Your task to perform on an android device: search for starred emails in the gmail app Image 0: 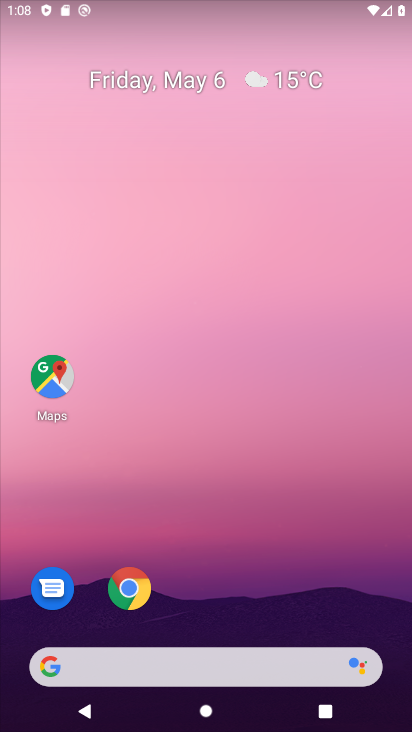
Step 0: drag from (259, 123) to (259, 33)
Your task to perform on an android device: search for starred emails in the gmail app Image 1: 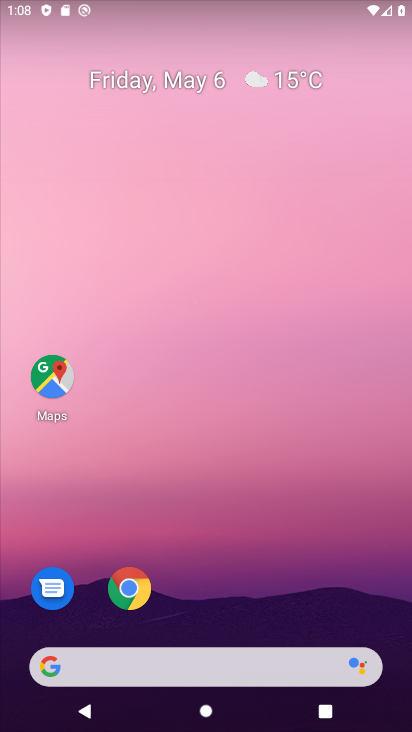
Step 1: drag from (218, 608) to (251, 155)
Your task to perform on an android device: search for starred emails in the gmail app Image 2: 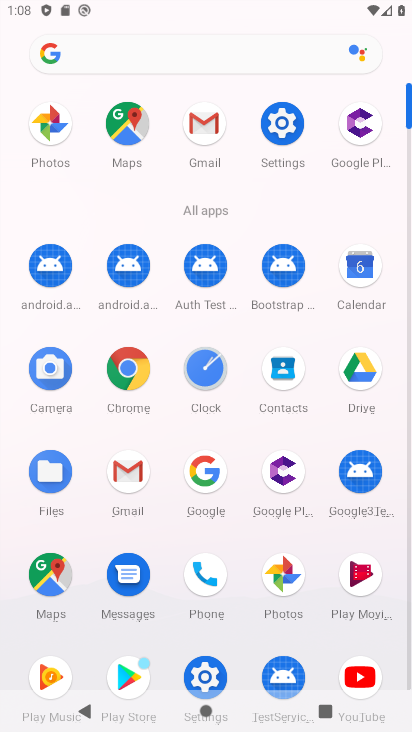
Step 2: click (133, 476)
Your task to perform on an android device: search for starred emails in the gmail app Image 3: 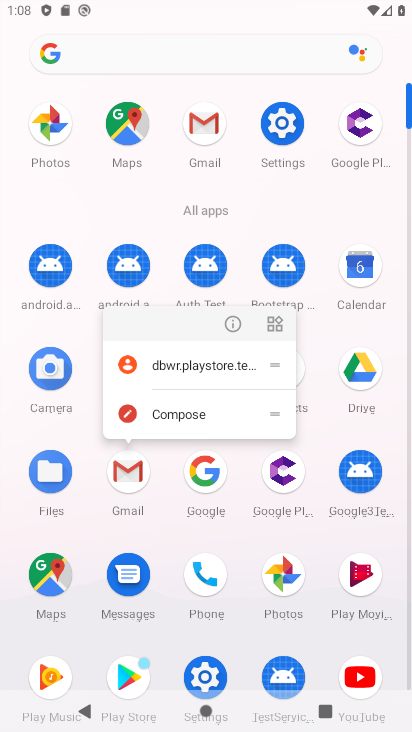
Step 3: click (230, 328)
Your task to perform on an android device: search for starred emails in the gmail app Image 4: 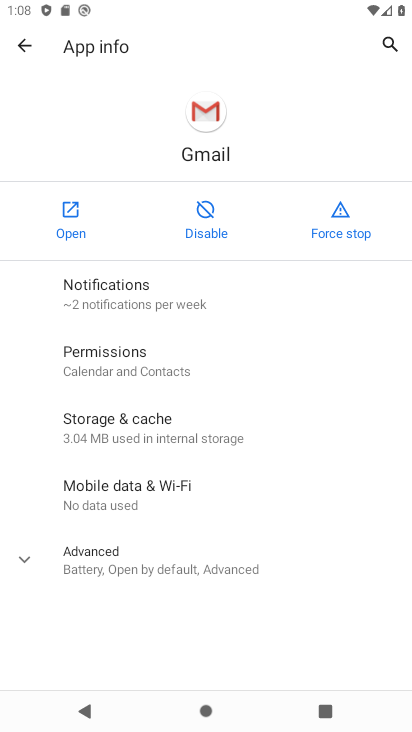
Step 4: click (58, 235)
Your task to perform on an android device: search for starred emails in the gmail app Image 5: 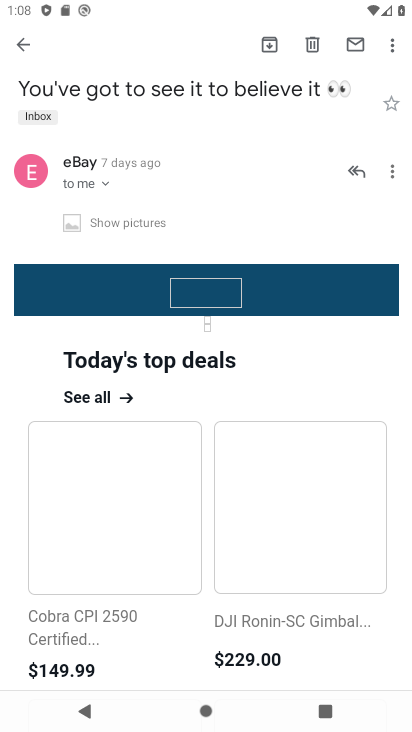
Step 5: press back button
Your task to perform on an android device: search for starred emails in the gmail app Image 6: 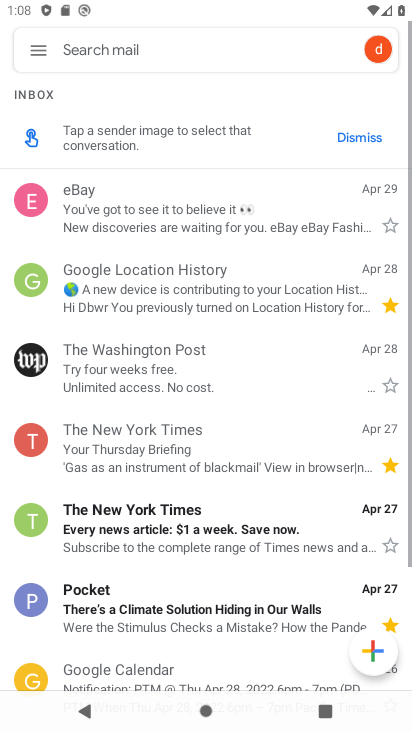
Step 6: click (192, 33)
Your task to perform on an android device: search for starred emails in the gmail app Image 7: 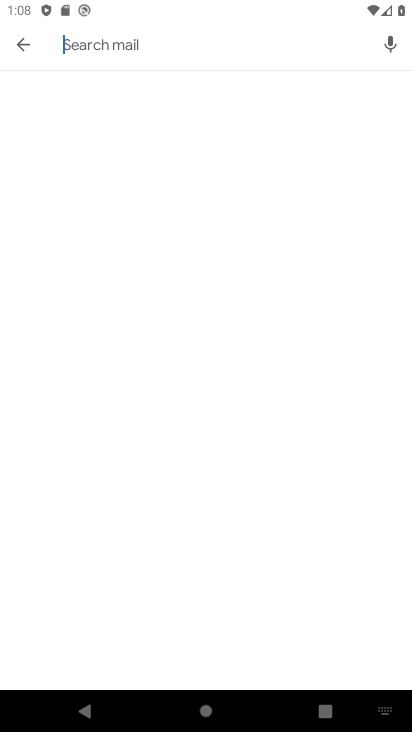
Step 7: type "starred "
Your task to perform on an android device: search for starred emails in the gmail app Image 8: 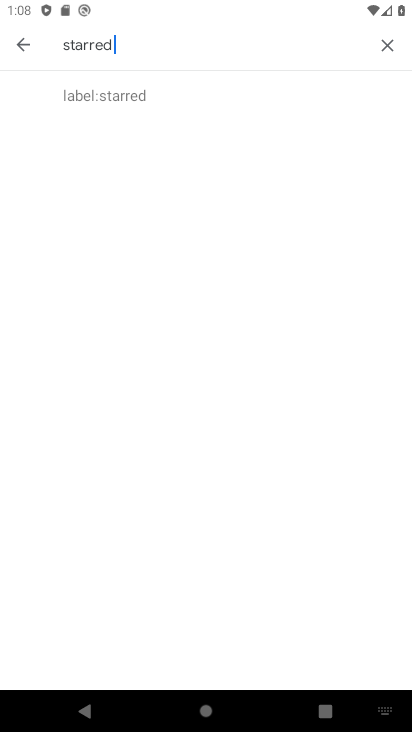
Step 8: click (55, 85)
Your task to perform on an android device: search for starred emails in the gmail app Image 9: 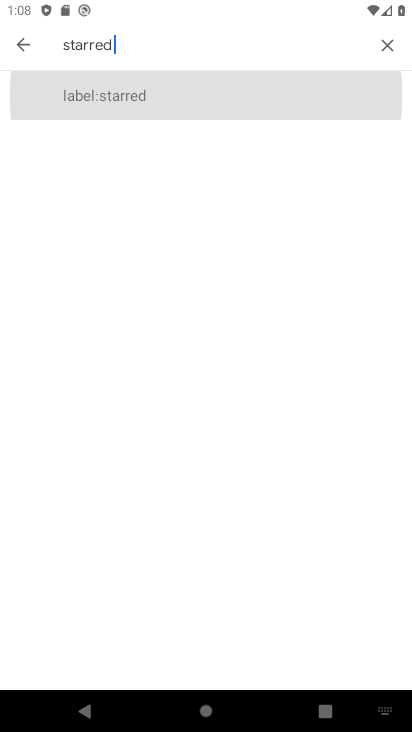
Step 9: click (129, 92)
Your task to perform on an android device: search for starred emails in the gmail app Image 10: 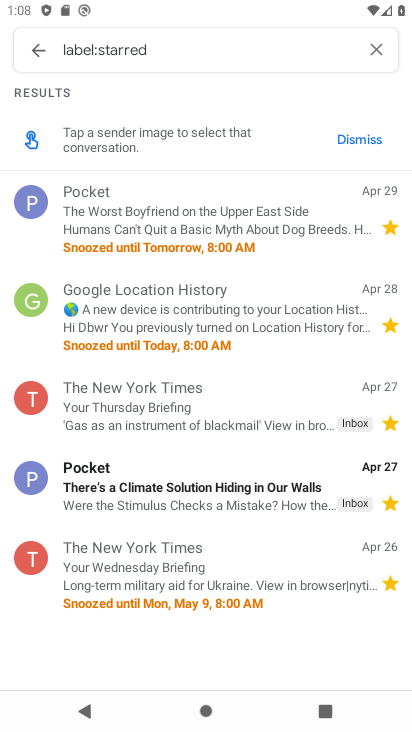
Step 10: task complete